Your task to perform on an android device: change the clock display to digital Image 0: 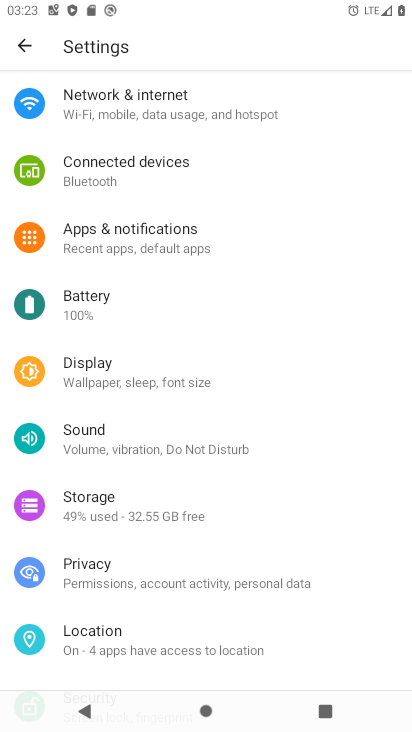
Step 0: press home button
Your task to perform on an android device: change the clock display to digital Image 1: 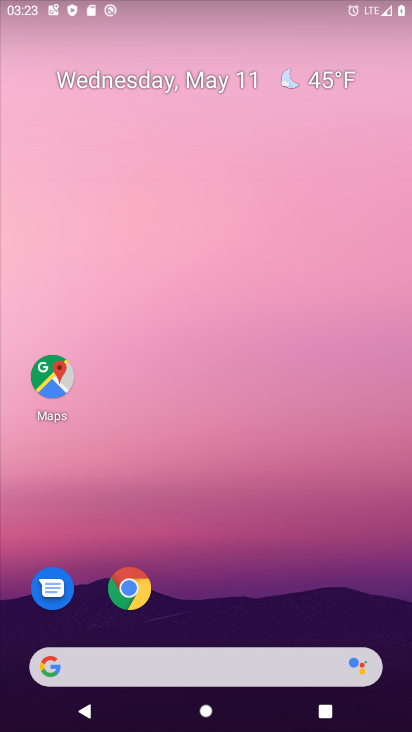
Step 1: drag from (191, 610) to (193, 306)
Your task to perform on an android device: change the clock display to digital Image 2: 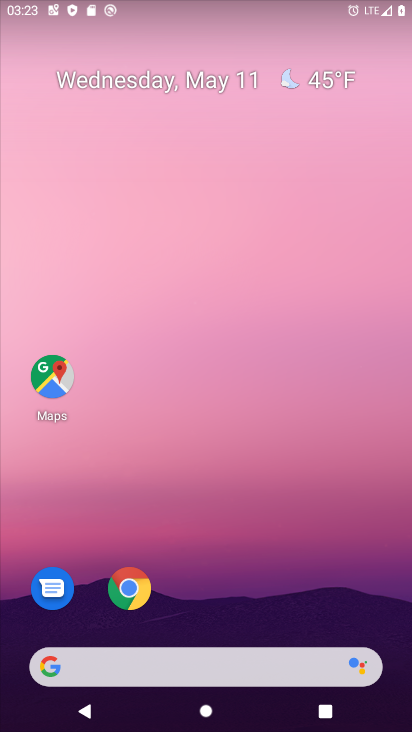
Step 2: drag from (232, 611) to (262, 123)
Your task to perform on an android device: change the clock display to digital Image 3: 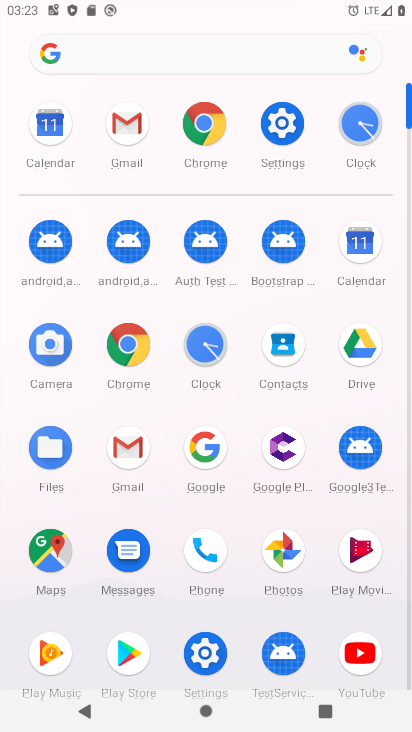
Step 3: click (351, 121)
Your task to perform on an android device: change the clock display to digital Image 4: 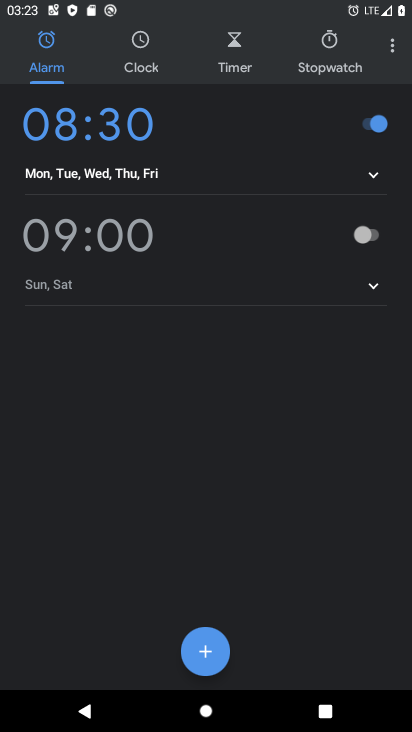
Step 4: click (390, 59)
Your task to perform on an android device: change the clock display to digital Image 5: 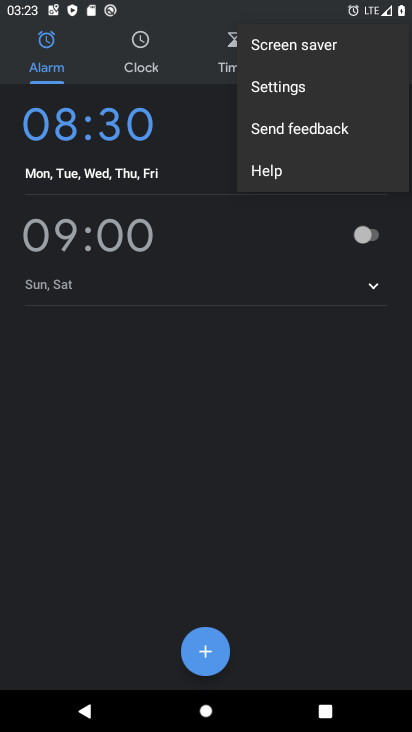
Step 5: click (343, 97)
Your task to perform on an android device: change the clock display to digital Image 6: 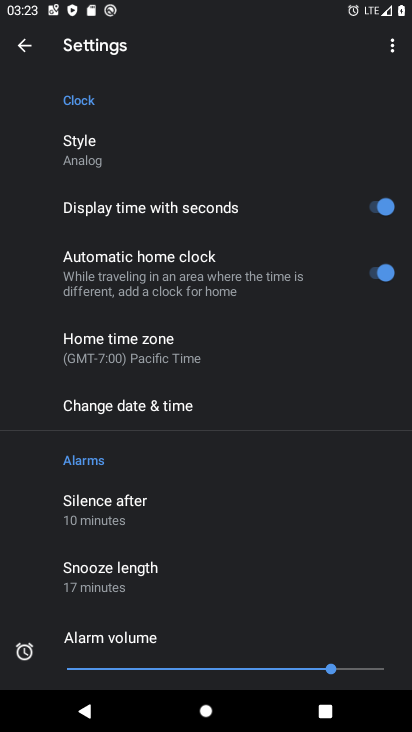
Step 6: click (145, 161)
Your task to perform on an android device: change the clock display to digital Image 7: 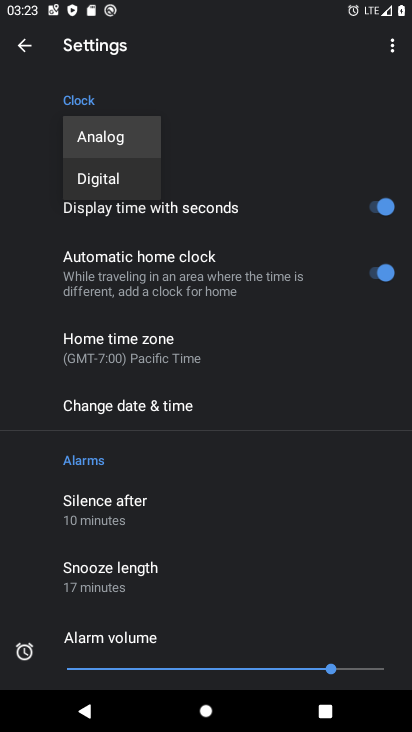
Step 7: click (131, 186)
Your task to perform on an android device: change the clock display to digital Image 8: 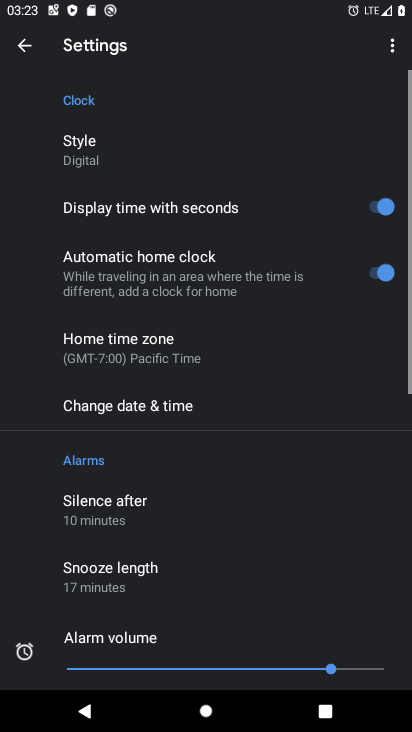
Step 8: task complete